Your task to perform on an android device: Open Wikipedia Image 0: 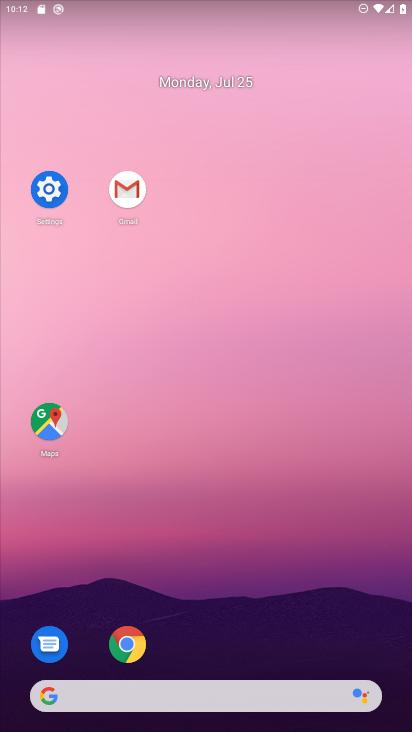
Step 0: click (132, 654)
Your task to perform on an android device: Open Wikipedia Image 1: 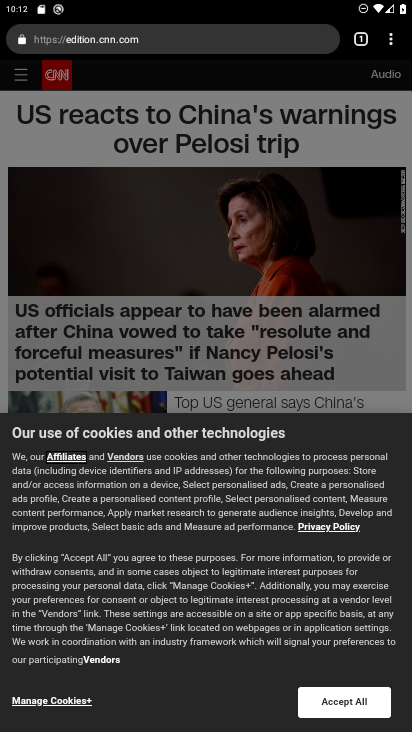
Step 1: click (366, 38)
Your task to perform on an android device: Open Wikipedia Image 2: 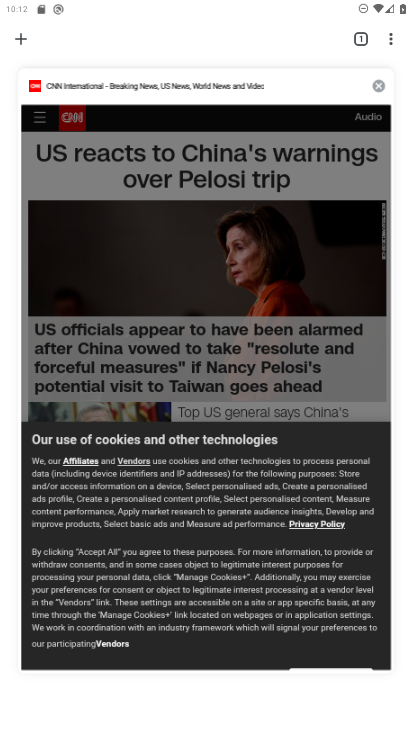
Step 2: click (16, 49)
Your task to perform on an android device: Open Wikipedia Image 3: 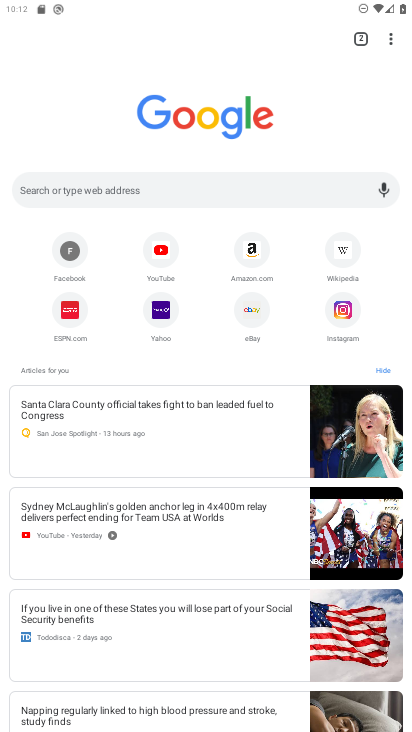
Step 3: click (351, 257)
Your task to perform on an android device: Open Wikipedia Image 4: 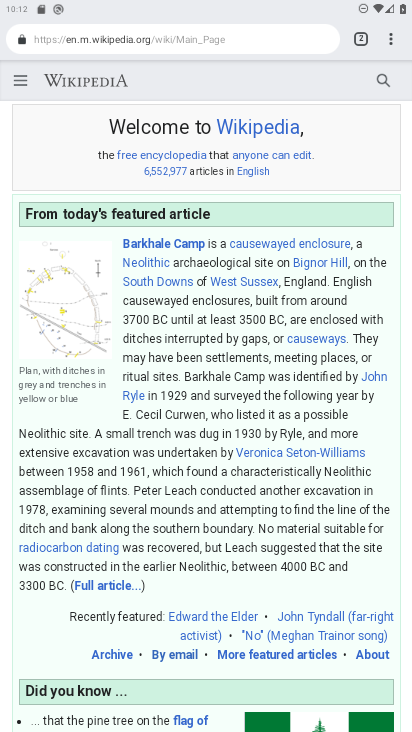
Step 4: task complete